Your task to perform on an android device: Clear all items from cart on newegg.com. Search for razer blade on newegg.com, select the first entry, add it to the cart, then select checkout. Image 0: 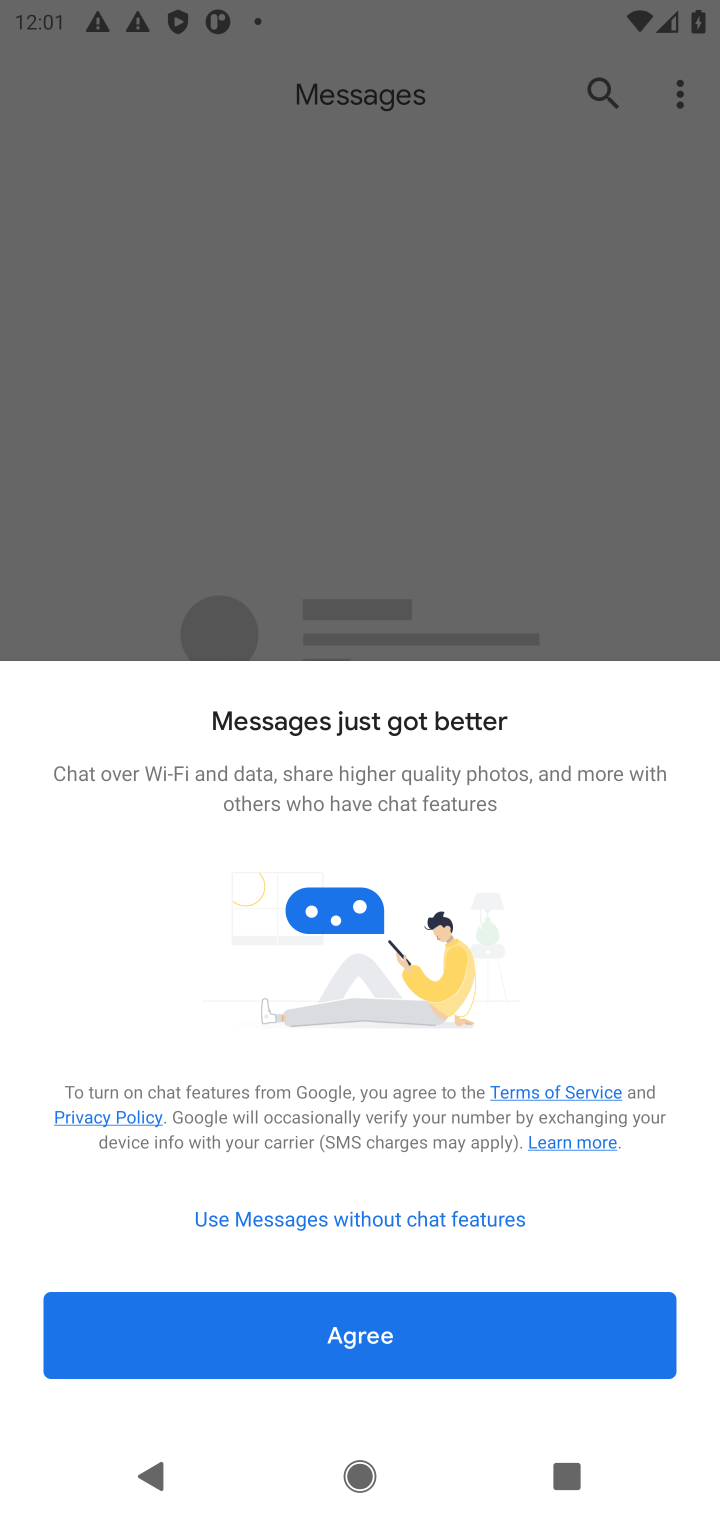
Step 0: press home button
Your task to perform on an android device: Clear all items from cart on newegg.com. Search for razer blade on newegg.com, select the first entry, add it to the cart, then select checkout. Image 1: 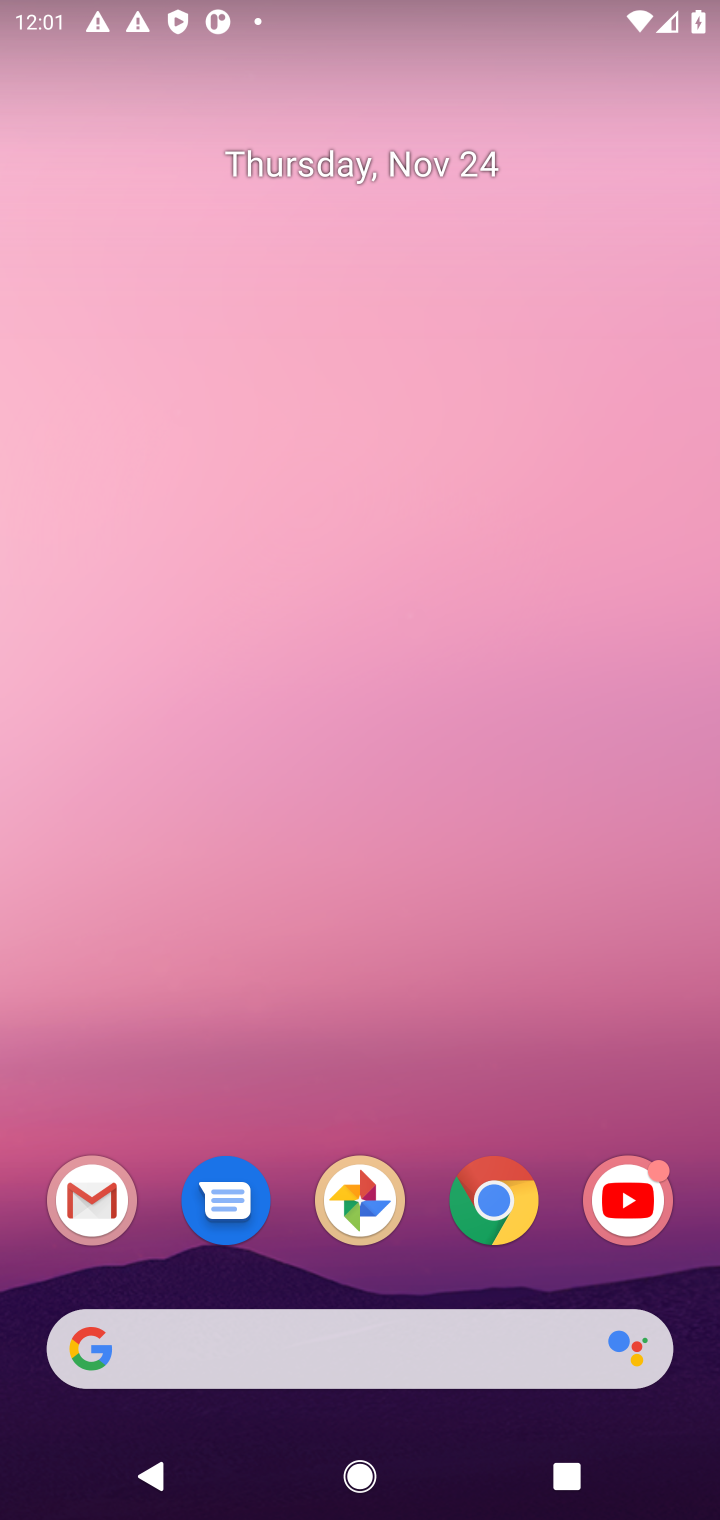
Step 1: click (481, 1328)
Your task to perform on an android device: Clear all items from cart on newegg.com. Search for razer blade on newegg.com, select the first entry, add it to the cart, then select checkout. Image 2: 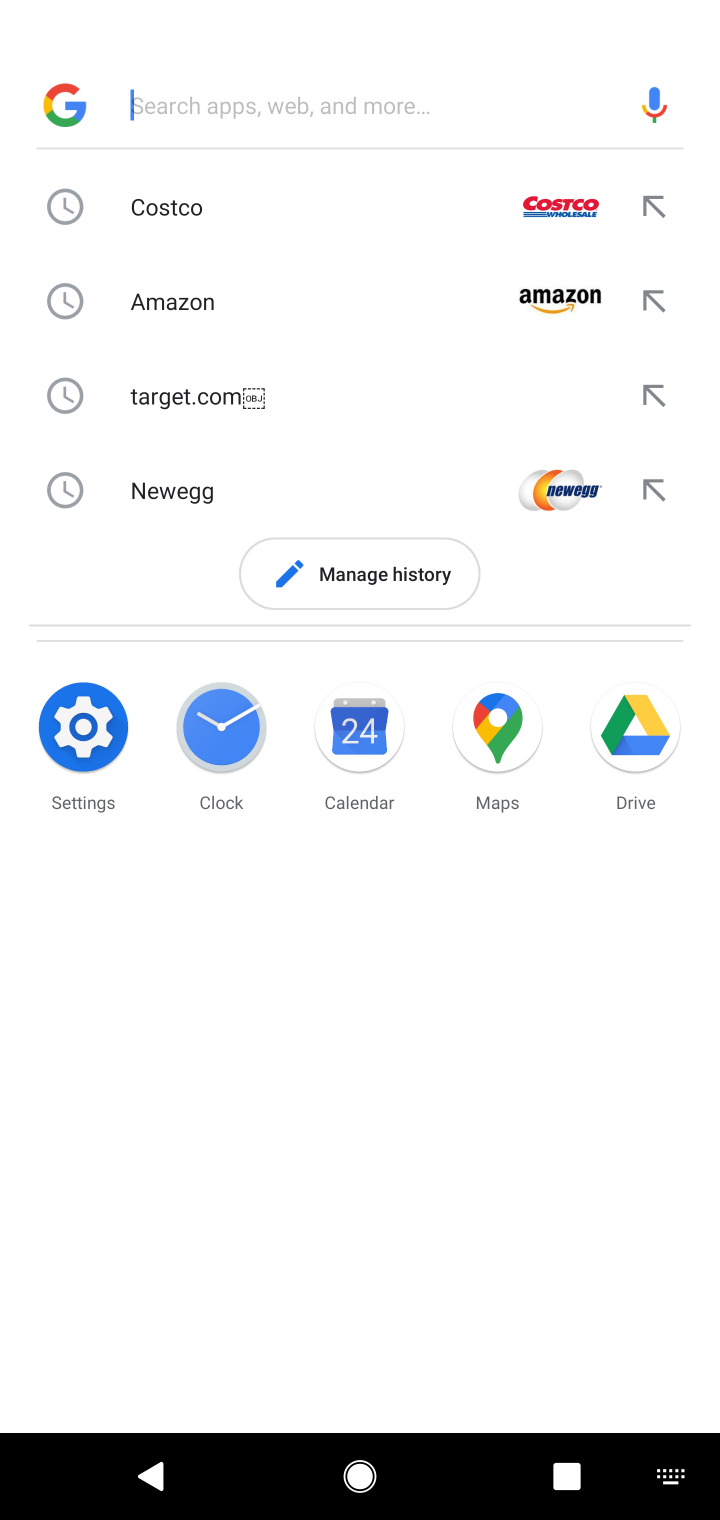
Step 2: click (457, 490)
Your task to perform on an android device: Clear all items from cart on newegg.com. Search for razer blade on newegg.com, select the first entry, add it to the cart, then select checkout. Image 3: 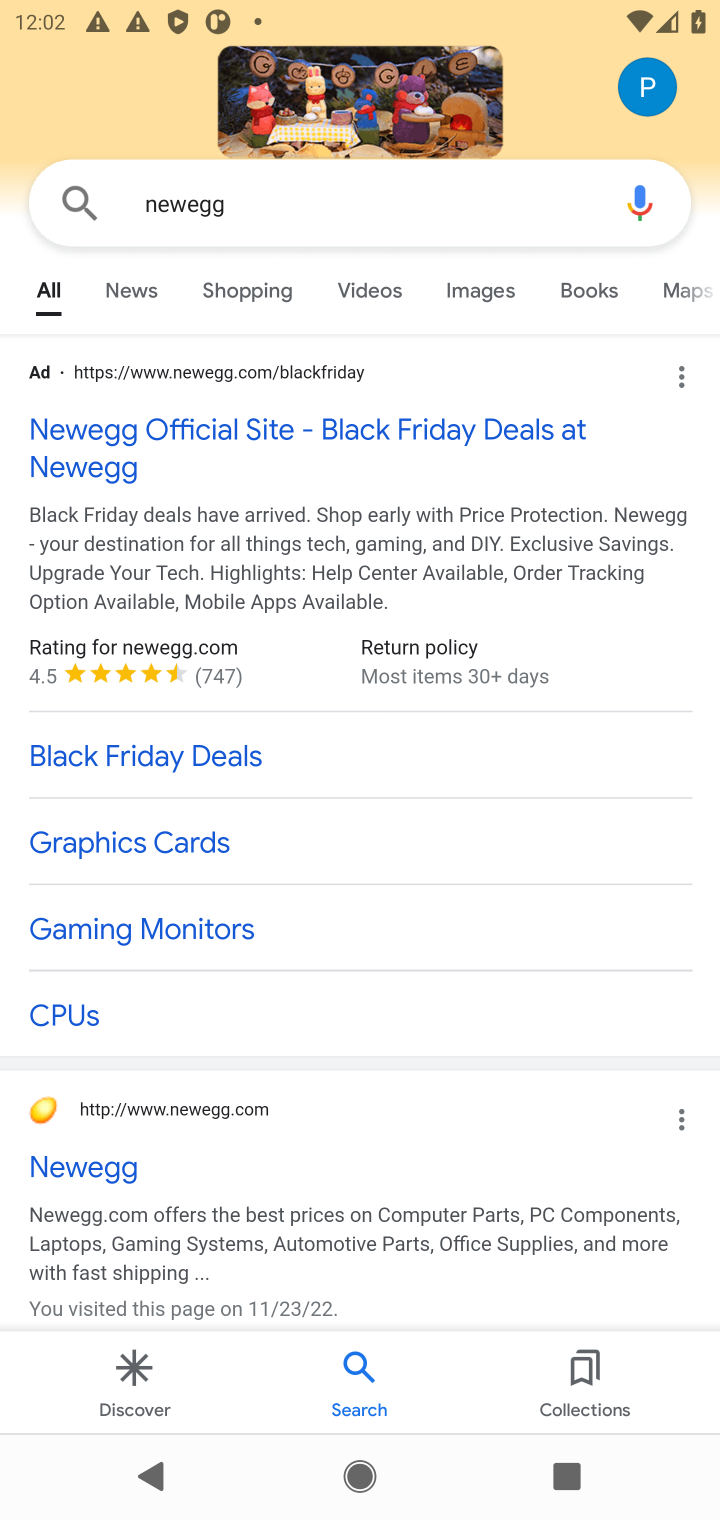
Step 3: click (354, 430)
Your task to perform on an android device: Clear all items from cart on newegg.com. Search for razer blade on newegg.com, select the first entry, add it to the cart, then select checkout. Image 4: 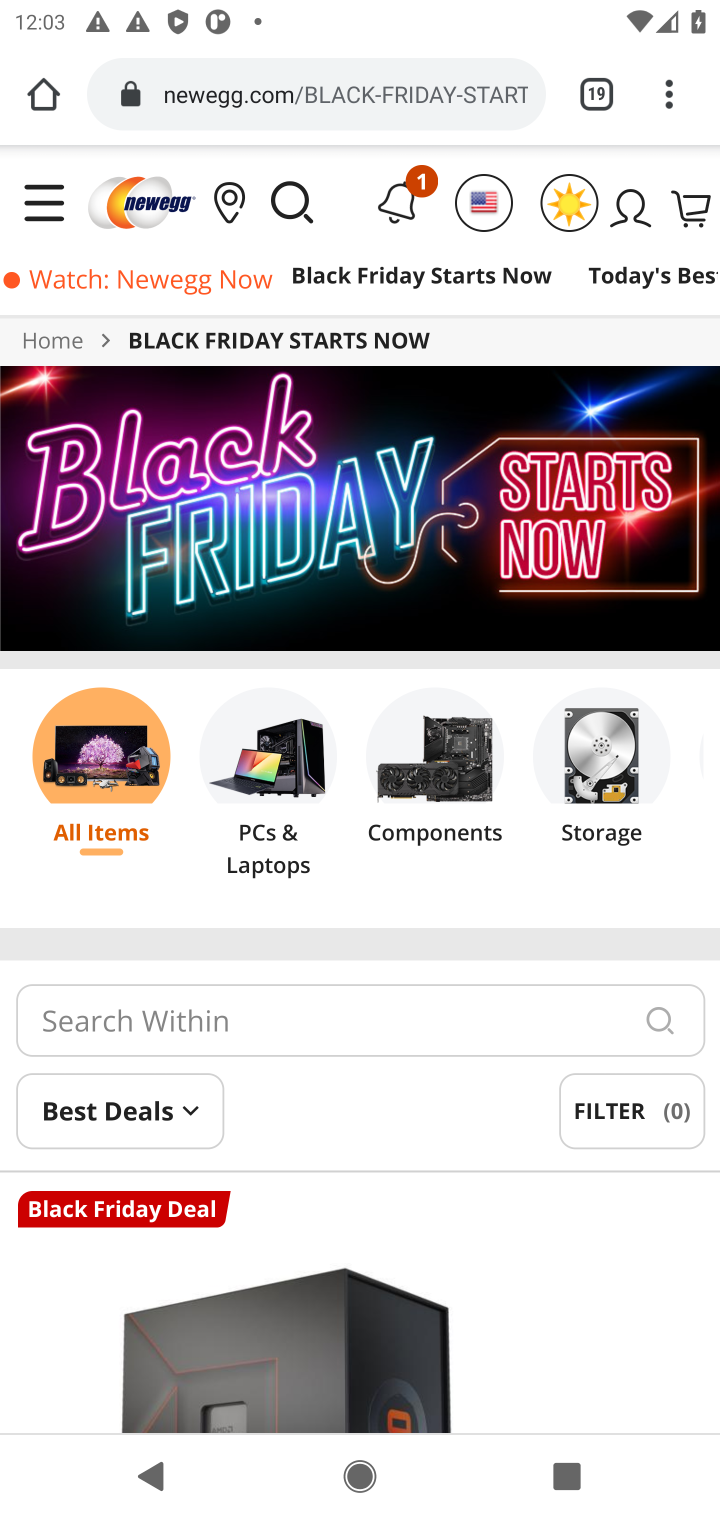
Step 4: click (293, 225)
Your task to perform on an android device: Clear all items from cart on newegg.com. Search for razer blade on newegg.com, select the first entry, add it to the cart, then select checkout. Image 5: 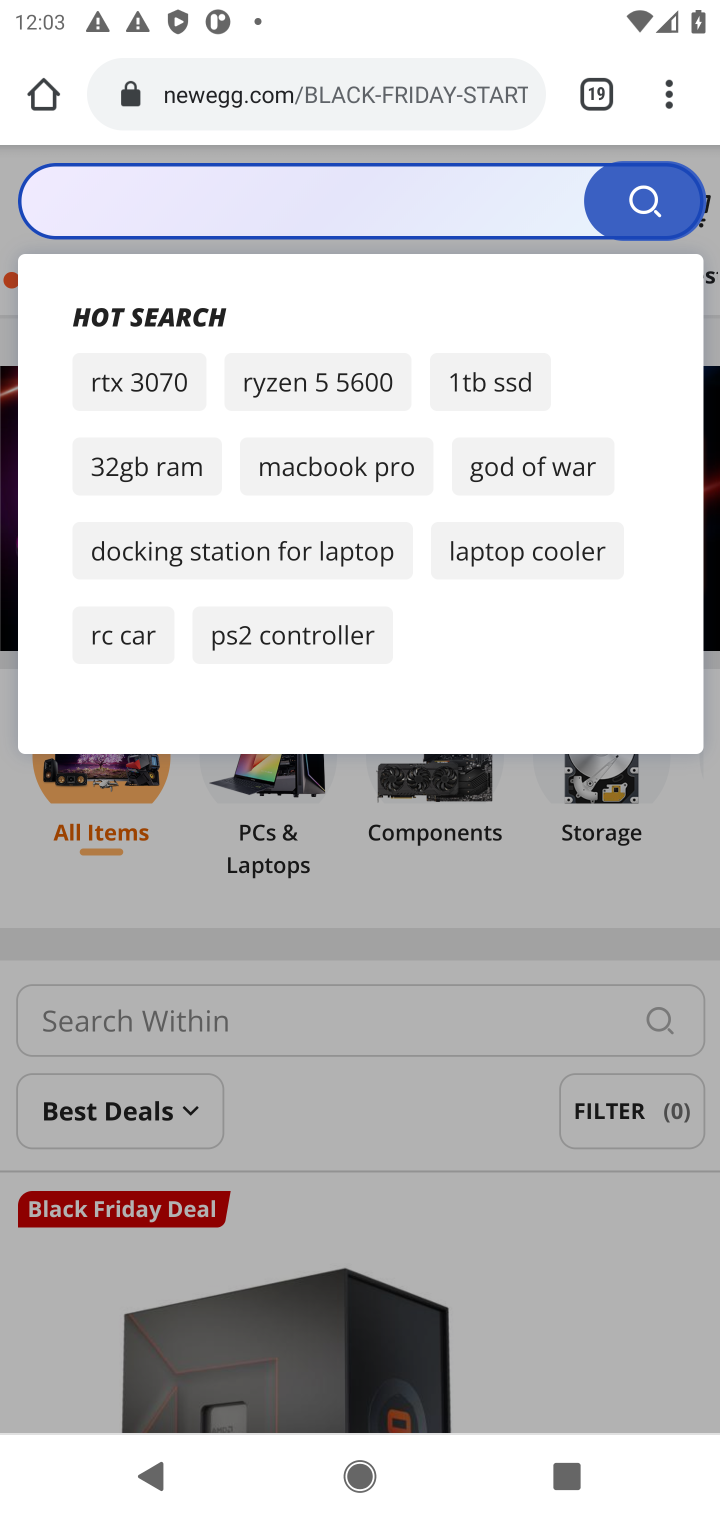
Step 5: type "razer blade"
Your task to perform on an android device: Clear all items from cart on newegg.com. Search for razer blade on newegg.com, select the first entry, add it to the cart, then select checkout. Image 6: 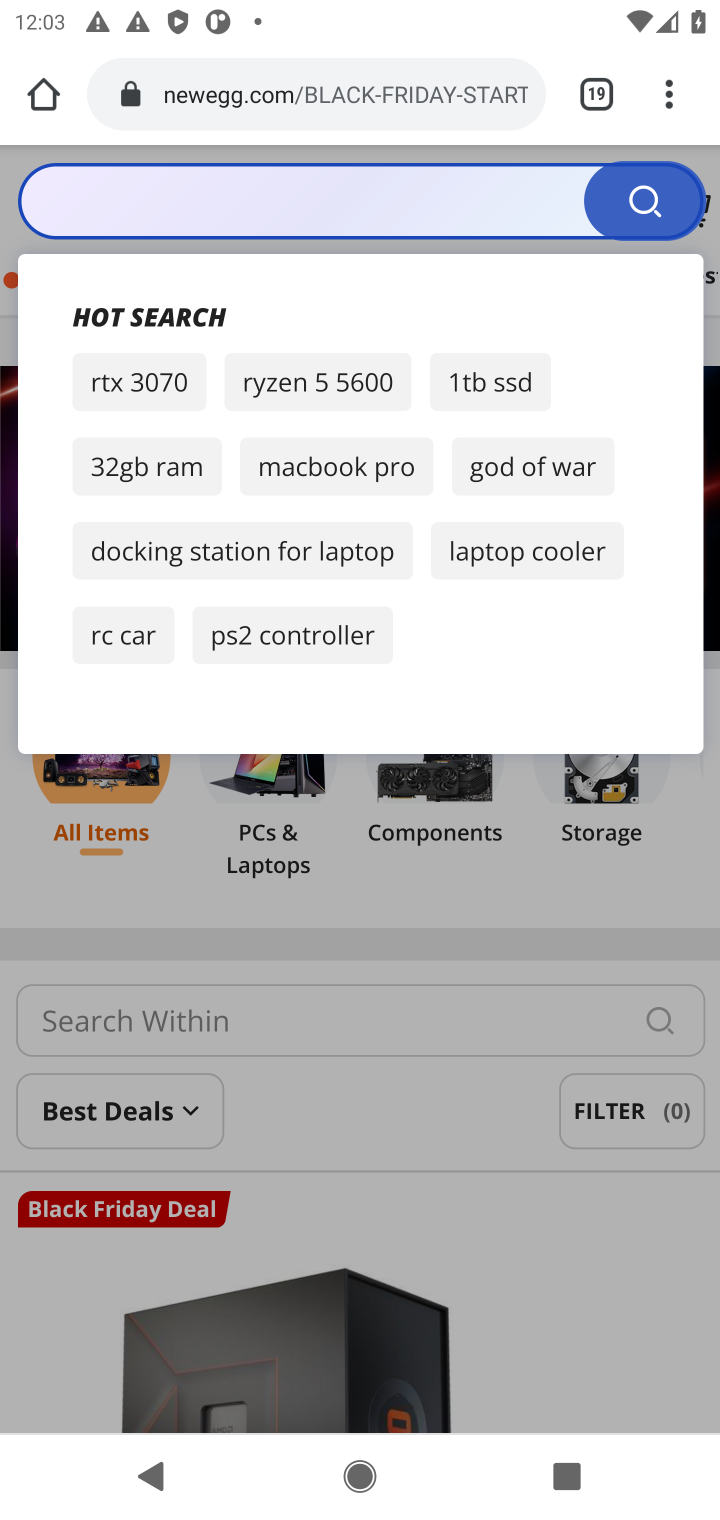
Step 6: click (522, 209)
Your task to perform on an android device: Clear all items from cart on newegg.com. Search for razer blade on newegg.com, select the first entry, add it to the cart, then select checkout. Image 7: 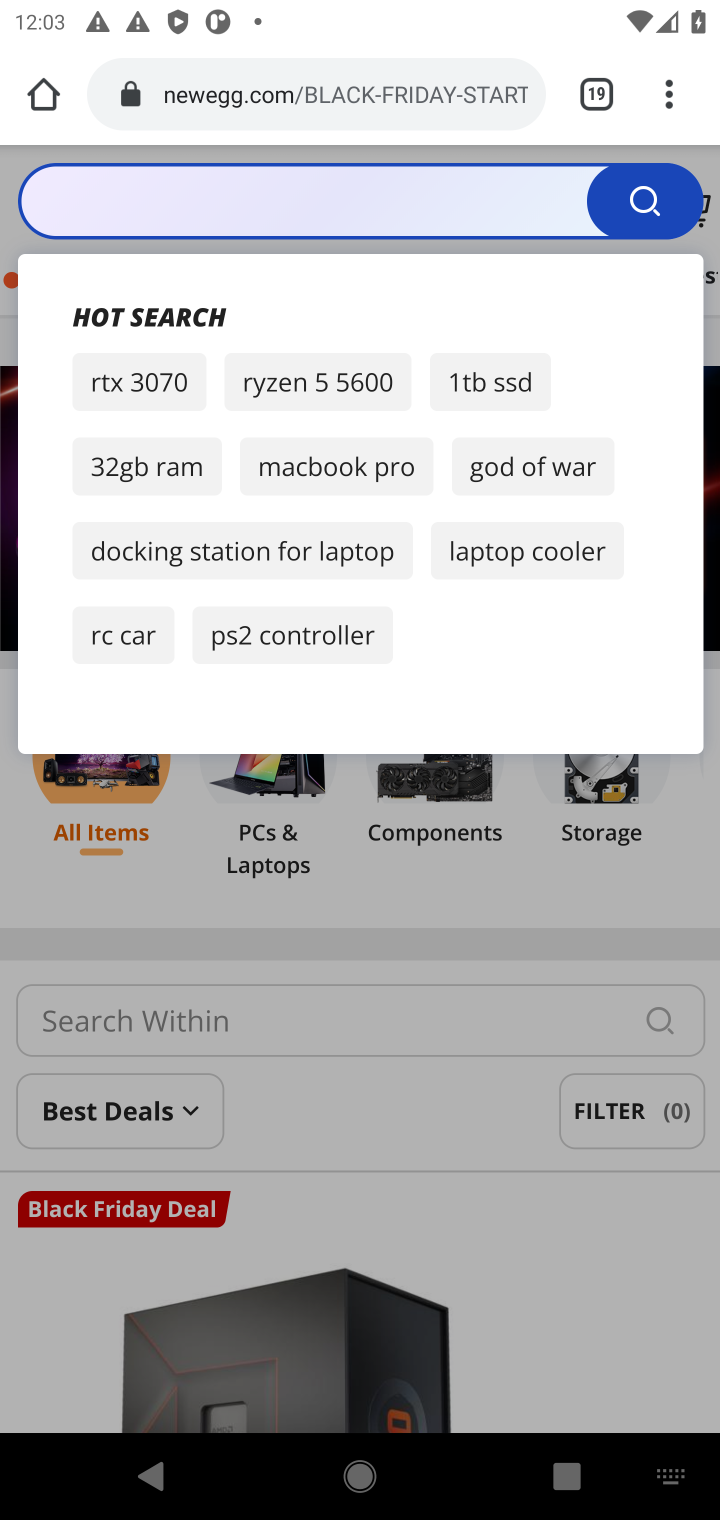
Step 7: type "razer blade"
Your task to perform on an android device: Clear all items from cart on newegg.com. Search for razer blade on newegg.com, select the first entry, add it to the cart, then select checkout. Image 8: 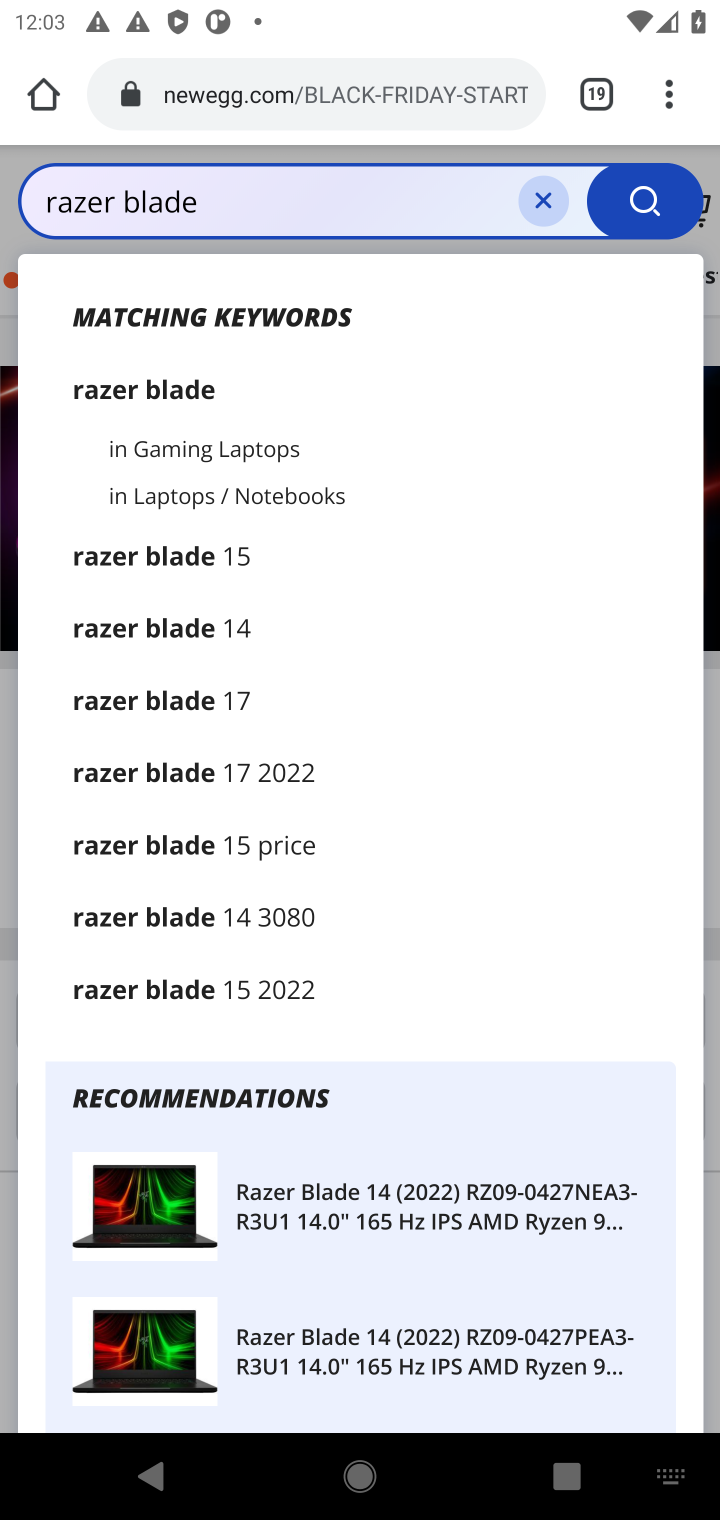
Step 8: click (639, 199)
Your task to perform on an android device: Clear all items from cart on newegg.com. Search for razer blade on newegg.com, select the first entry, add it to the cart, then select checkout. Image 9: 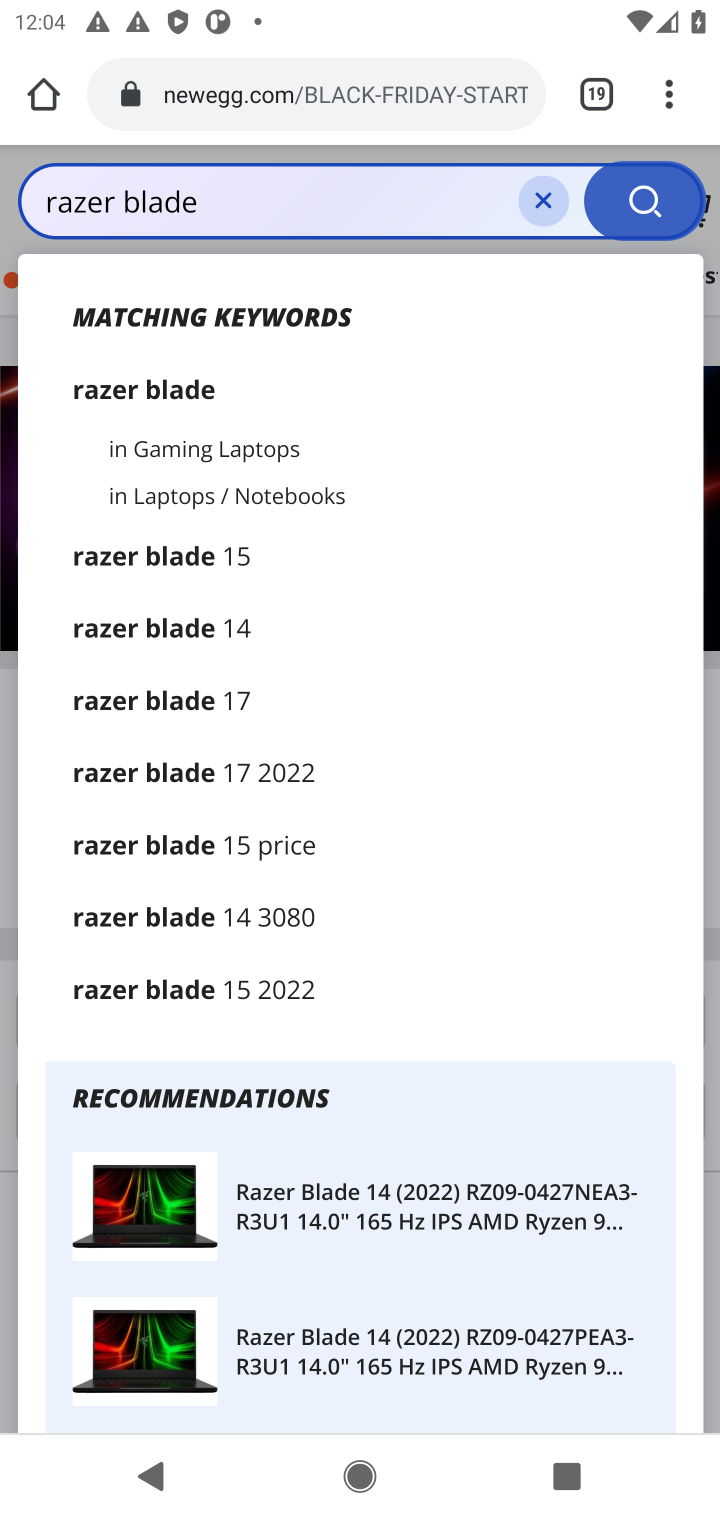
Step 9: click (101, 404)
Your task to perform on an android device: Clear all items from cart on newegg.com. Search for razer blade on newegg.com, select the first entry, add it to the cart, then select checkout. Image 10: 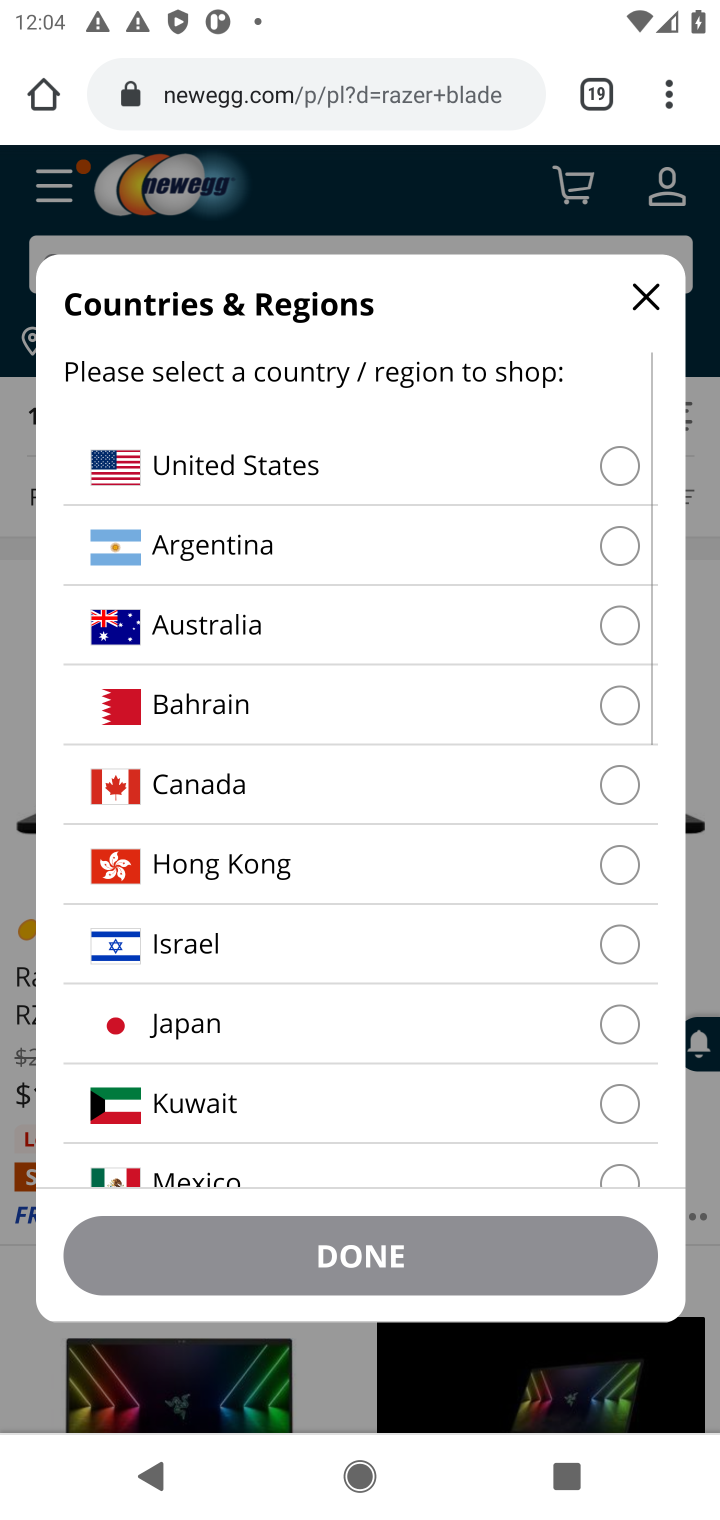
Step 10: click (228, 464)
Your task to perform on an android device: Clear all items from cart on newegg.com. Search for razer blade on newegg.com, select the first entry, add it to the cart, then select checkout. Image 11: 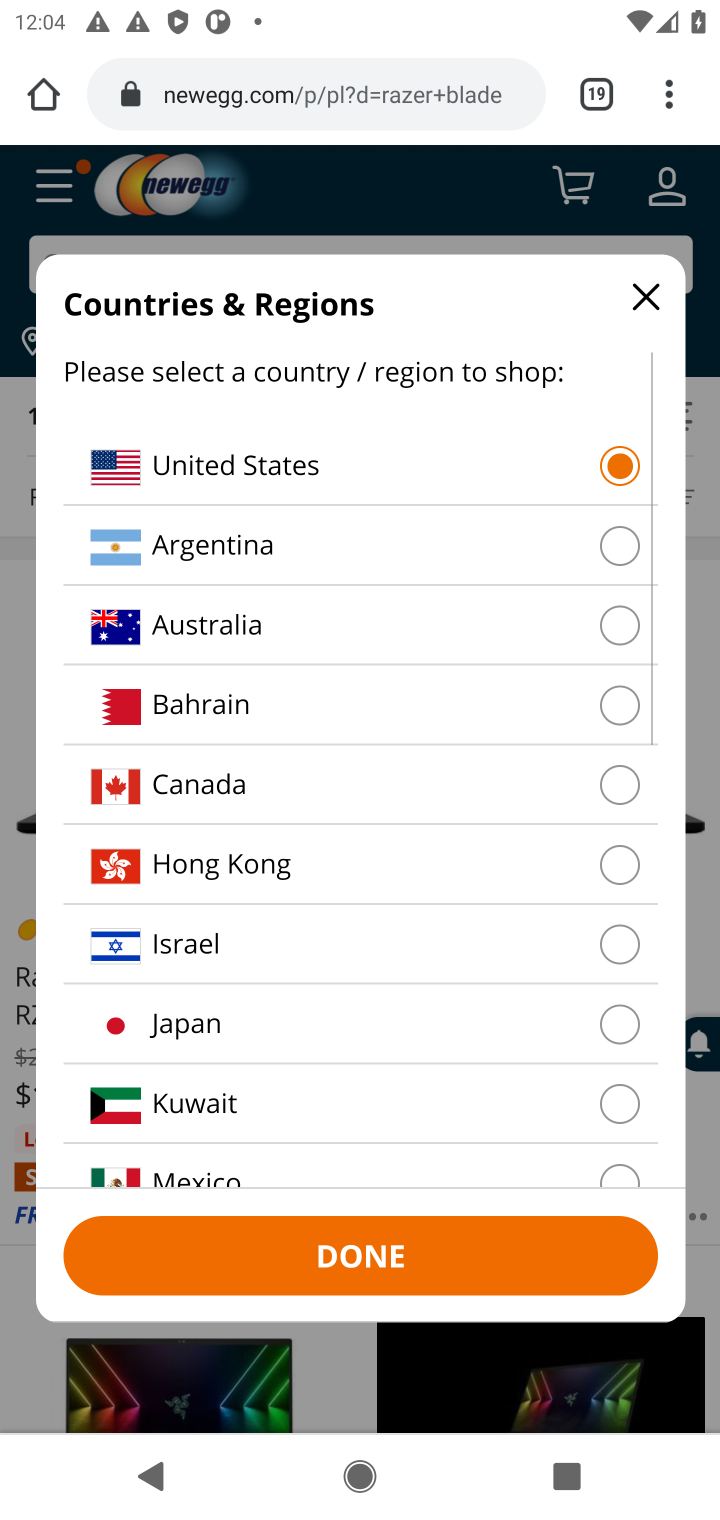
Step 11: click (401, 1218)
Your task to perform on an android device: Clear all items from cart on newegg.com. Search for razer blade on newegg.com, select the first entry, add it to the cart, then select checkout. Image 12: 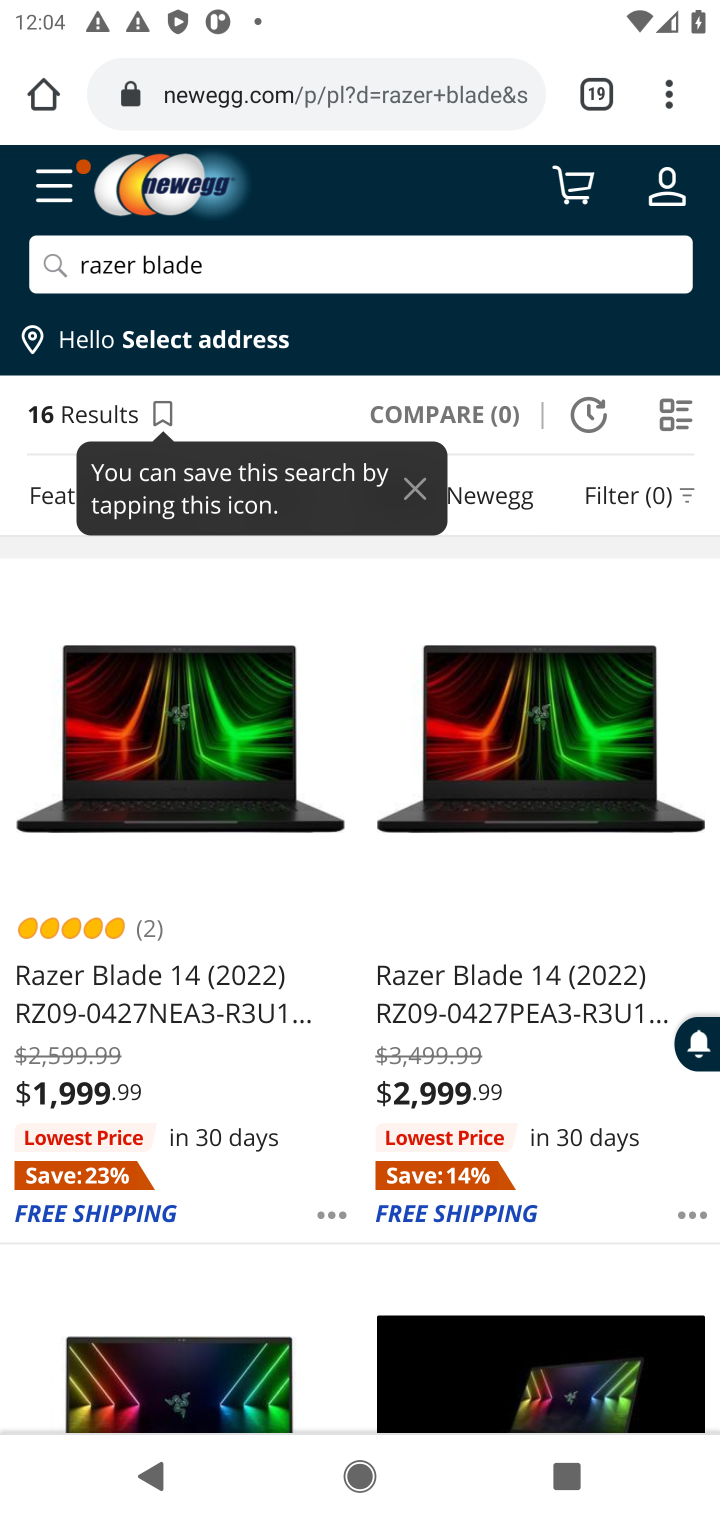
Step 12: task complete